Your task to perform on an android device: refresh tabs in the chrome app Image 0: 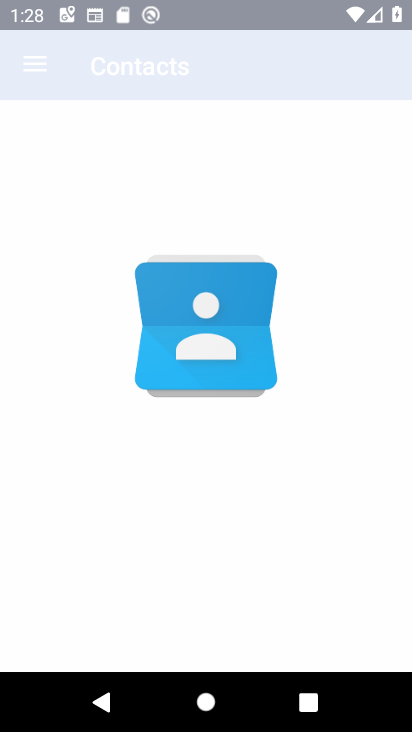
Step 0: drag from (172, 626) to (125, 88)
Your task to perform on an android device: refresh tabs in the chrome app Image 1: 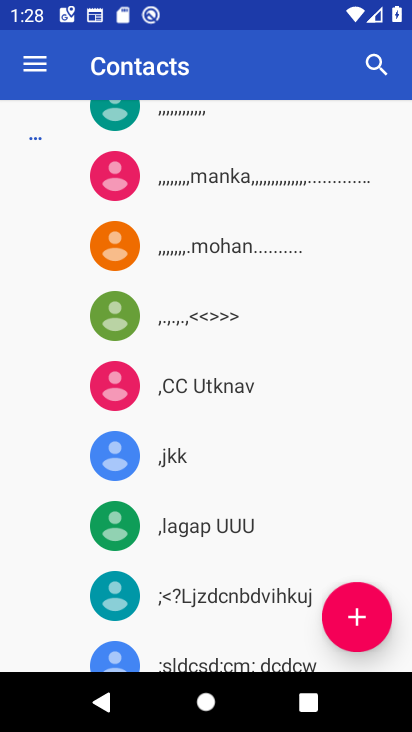
Step 1: press home button
Your task to perform on an android device: refresh tabs in the chrome app Image 2: 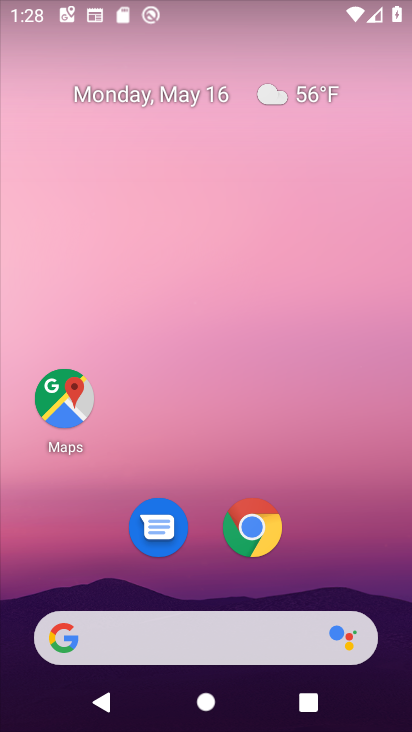
Step 2: click (264, 540)
Your task to perform on an android device: refresh tabs in the chrome app Image 3: 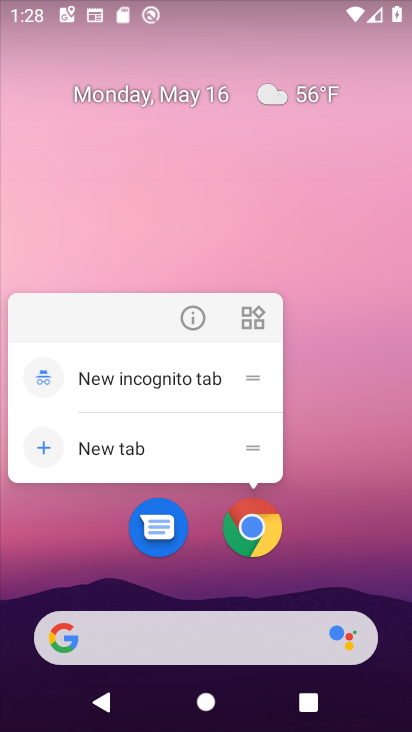
Step 3: click (250, 543)
Your task to perform on an android device: refresh tabs in the chrome app Image 4: 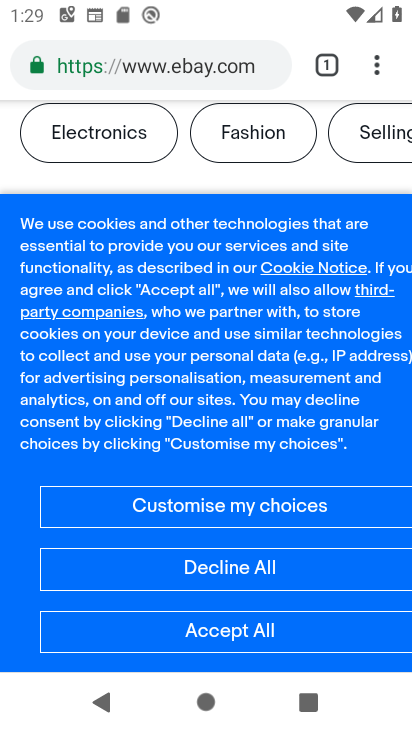
Step 4: click (377, 59)
Your task to perform on an android device: refresh tabs in the chrome app Image 5: 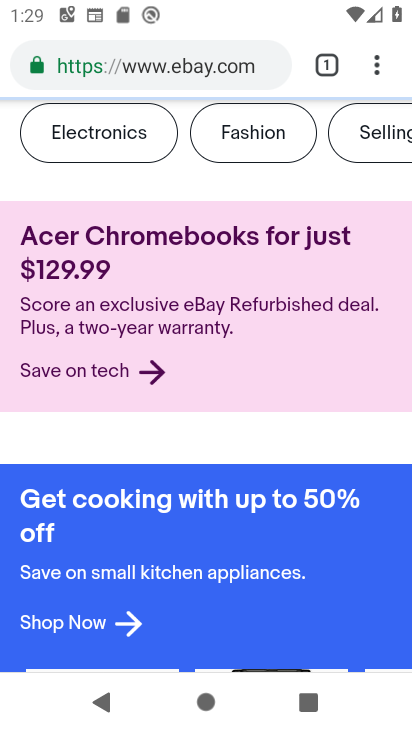
Step 5: task complete